Your task to perform on an android device: Go to Yahoo.com Image 0: 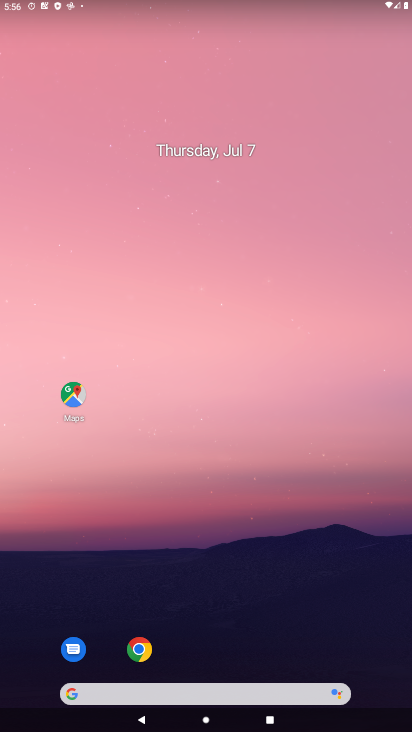
Step 0: drag from (365, 665) to (197, 48)
Your task to perform on an android device: Go to Yahoo.com Image 1: 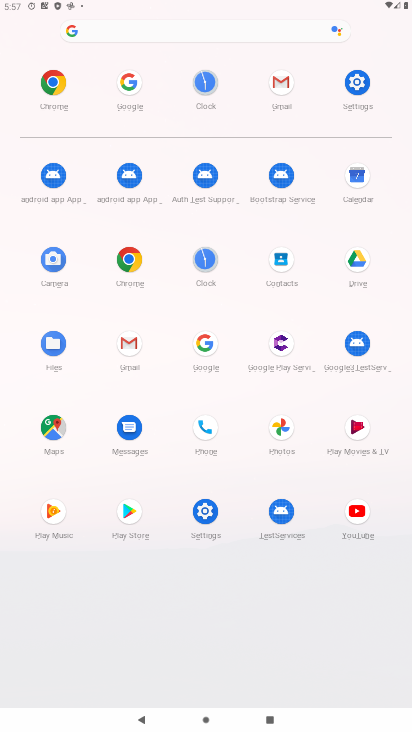
Step 1: click (215, 344)
Your task to perform on an android device: Go to Yahoo.com Image 2: 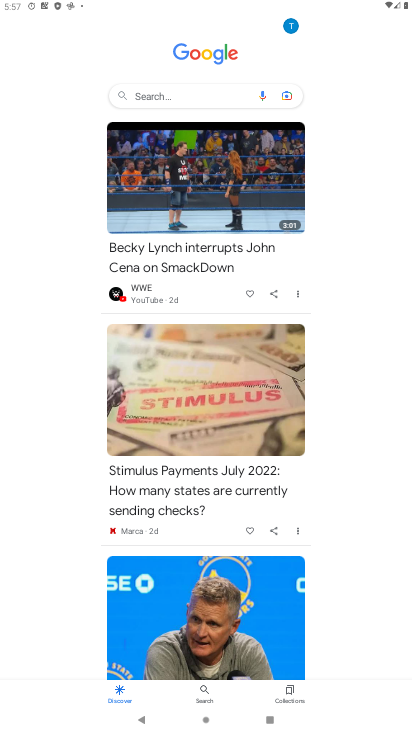
Step 2: click (170, 89)
Your task to perform on an android device: Go to Yahoo.com Image 3: 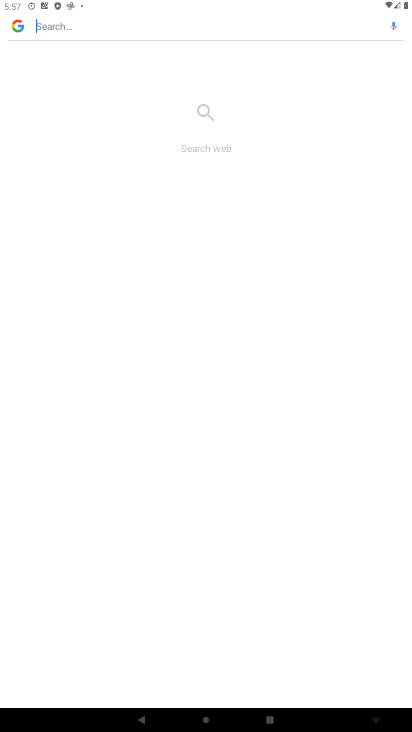
Step 3: type "Yahoo.com"
Your task to perform on an android device: Go to Yahoo.com Image 4: 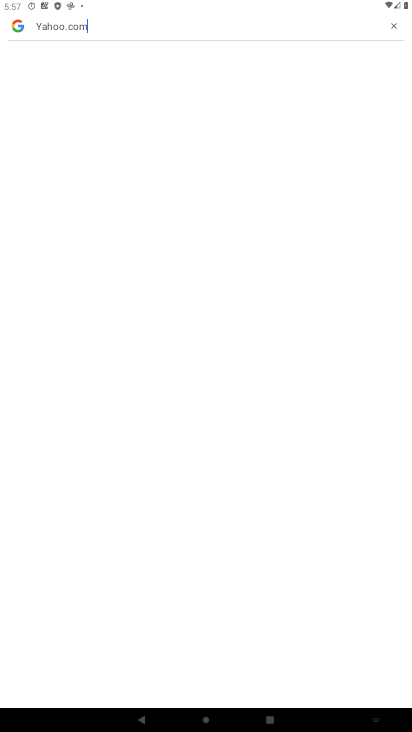
Step 4: task complete